Your task to perform on an android device: turn on sleep mode Image 0: 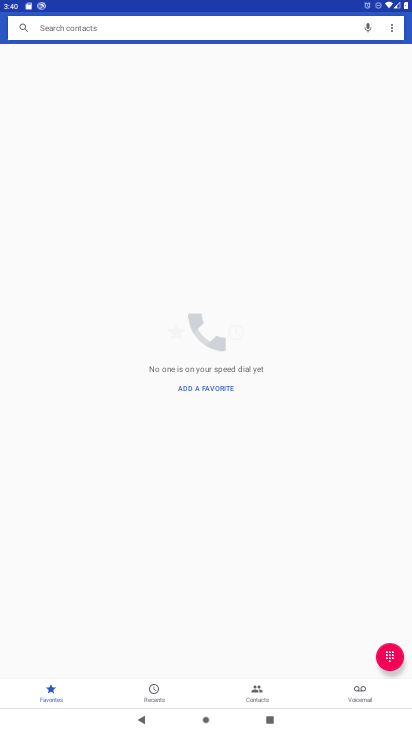
Step 0: press home button
Your task to perform on an android device: turn on sleep mode Image 1: 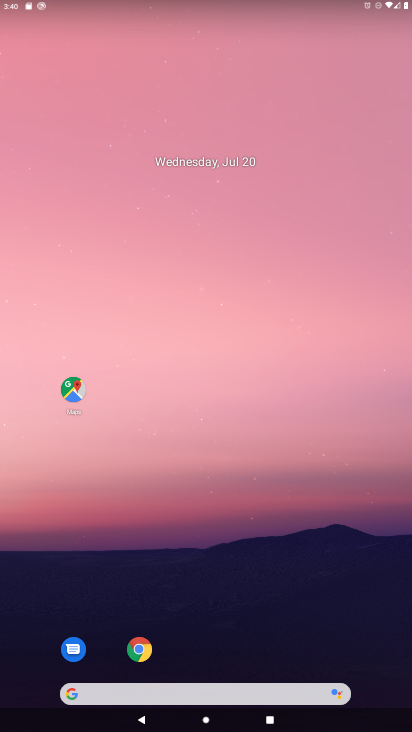
Step 1: drag from (204, 697) to (316, 111)
Your task to perform on an android device: turn on sleep mode Image 2: 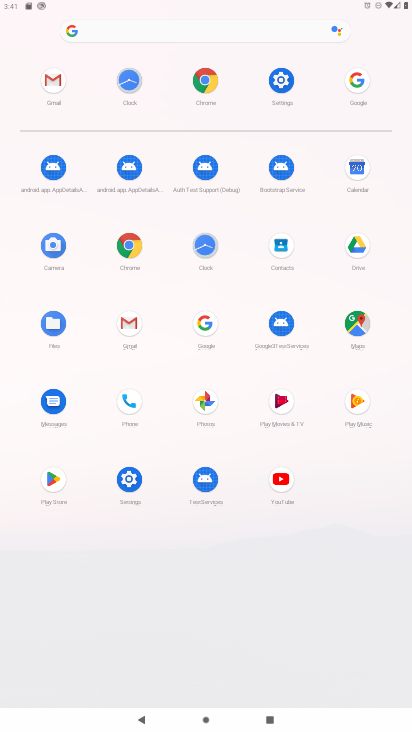
Step 2: click (281, 82)
Your task to perform on an android device: turn on sleep mode Image 3: 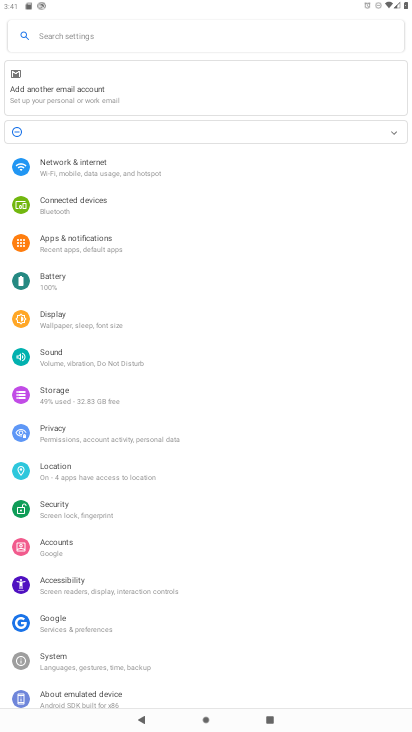
Step 3: click (86, 323)
Your task to perform on an android device: turn on sleep mode Image 4: 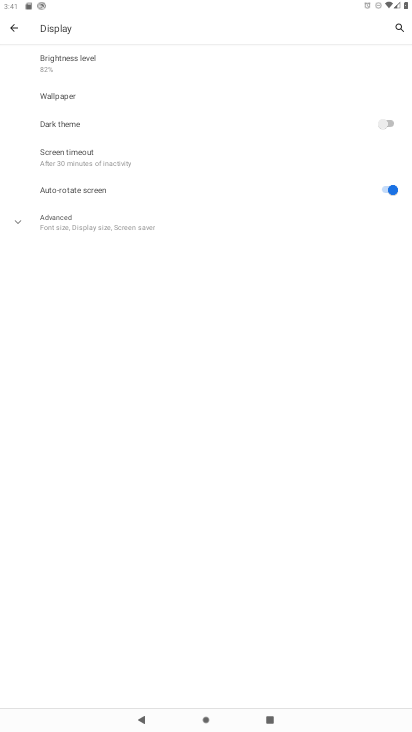
Step 4: click (91, 157)
Your task to perform on an android device: turn on sleep mode Image 5: 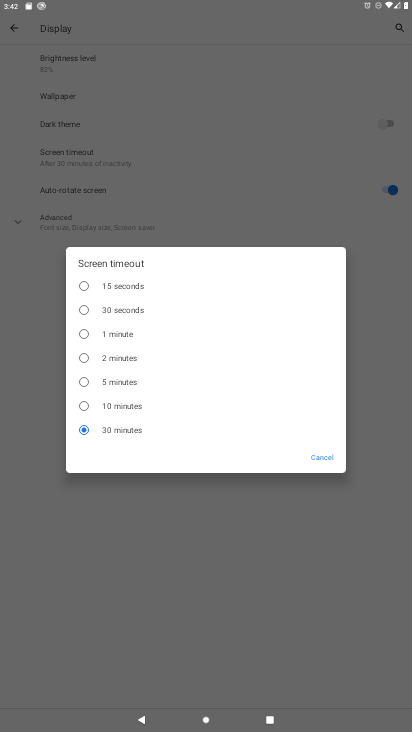
Step 5: click (326, 461)
Your task to perform on an android device: turn on sleep mode Image 6: 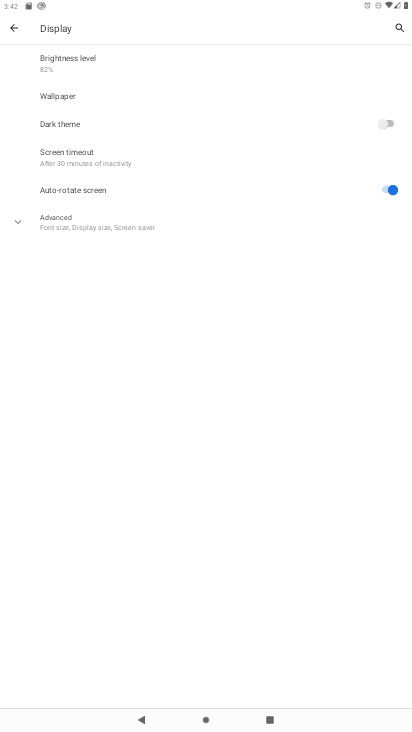
Step 6: task complete